Your task to perform on an android device: toggle wifi Image 0: 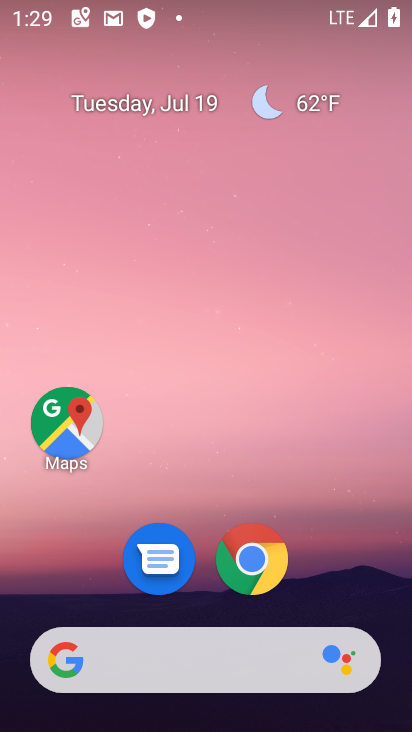
Step 0: drag from (213, 627) to (212, 115)
Your task to perform on an android device: toggle wifi Image 1: 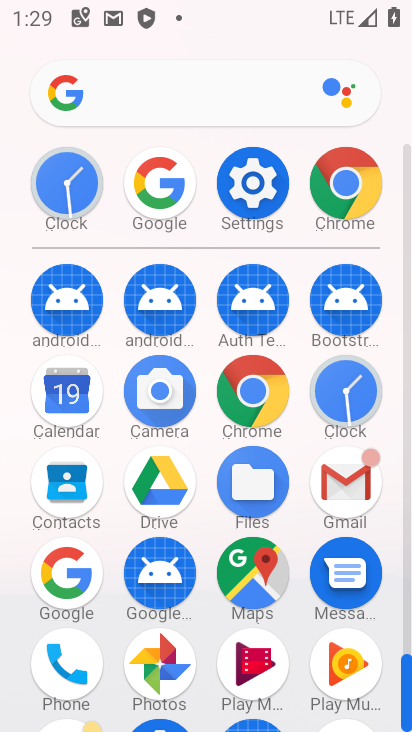
Step 1: click (248, 221)
Your task to perform on an android device: toggle wifi Image 2: 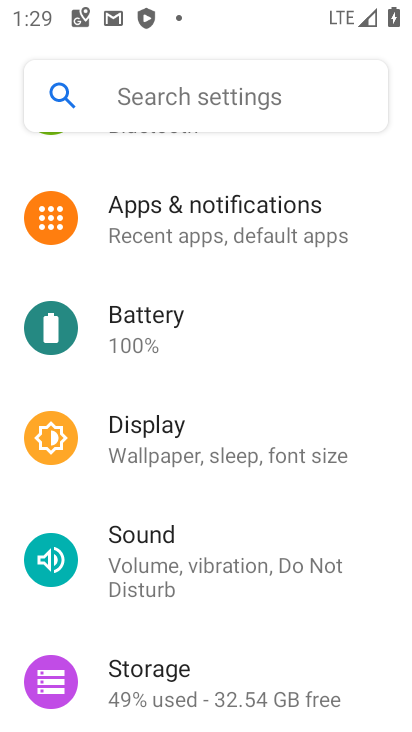
Step 2: click (241, 225)
Your task to perform on an android device: toggle wifi Image 3: 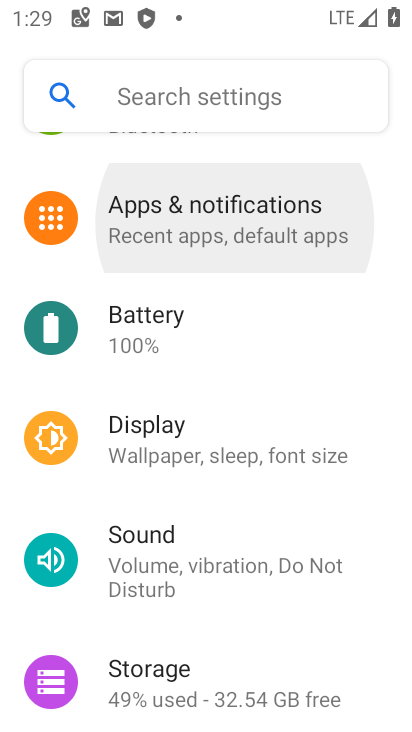
Step 3: drag from (241, 225) to (224, 659)
Your task to perform on an android device: toggle wifi Image 4: 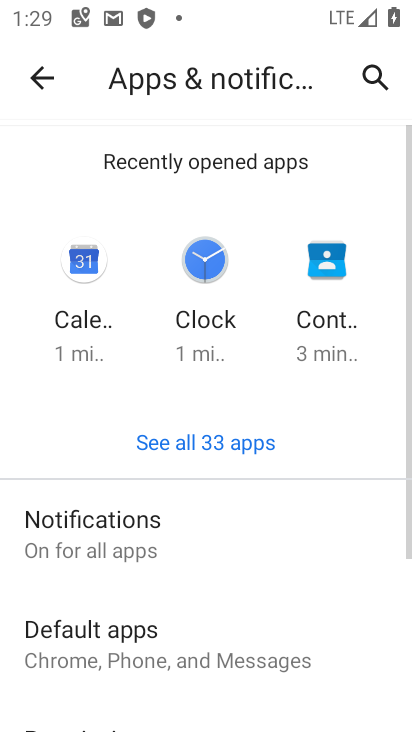
Step 4: click (47, 80)
Your task to perform on an android device: toggle wifi Image 5: 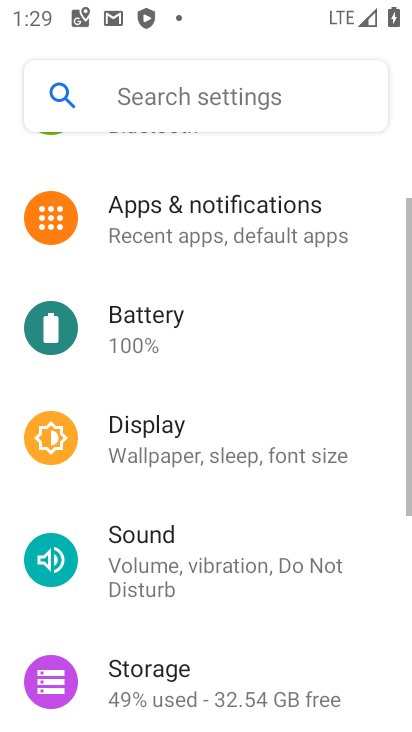
Step 5: drag from (229, 325) to (203, 727)
Your task to perform on an android device: toggle wifi Image 6: 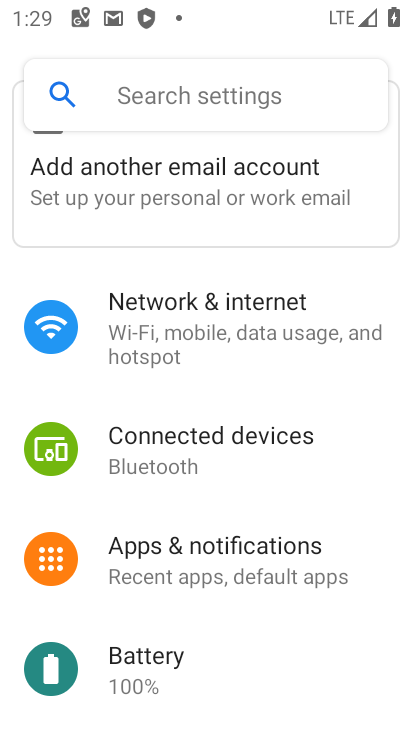
Step 6: drag from (202, 328) to (191, 664)
Your task to perform on an android device: toggle wifi Image 7: 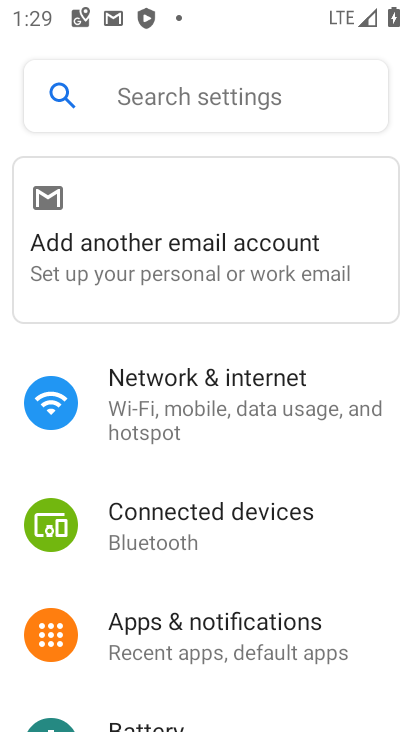
Step 7: click (292, 391)
Your task to perform on an android device: toggle wifi Image 8: 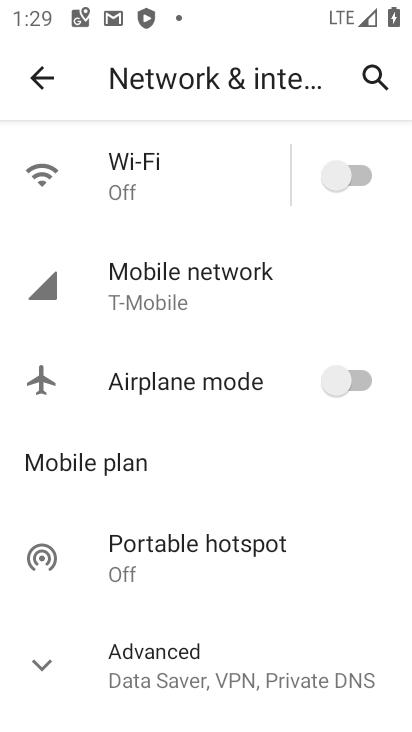
Step 8: click (362, 187)
Your task to perform on an android device: toggle wifi Image 9: 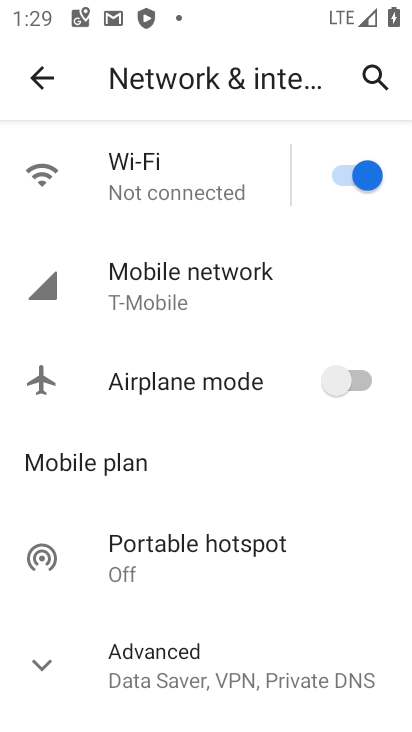
Step 9: task complete